Your task to perform on an android device: Show me recent news Image 0: 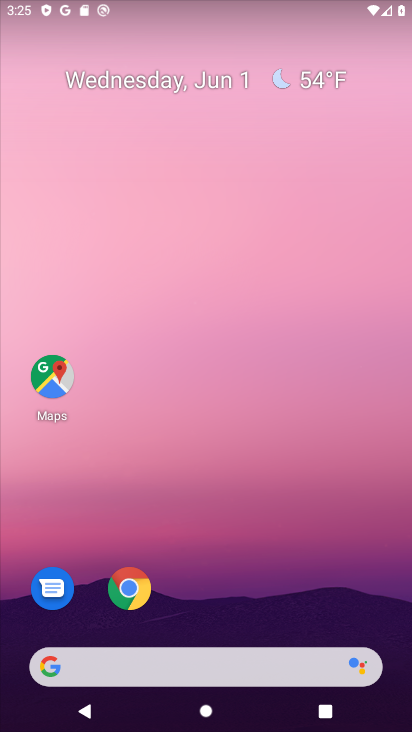
Step 0: click (173, 654)
Your task to perform on an android device: Show me recent news Image 1: 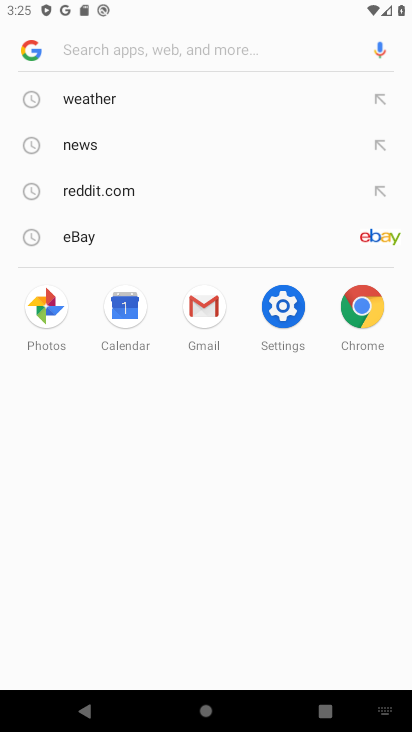
Step 1: type "recent news"
Your task to perform on an android device: Show me recent news Image 2: 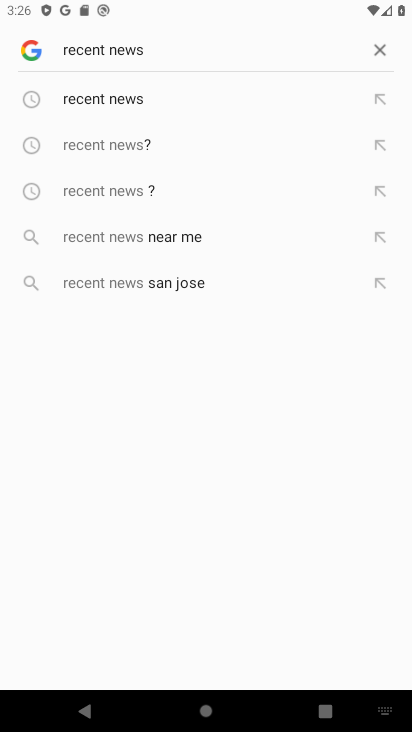
Step 2: click (137, 92)
Your task to perform on an android device: Show me recent news Image 3: 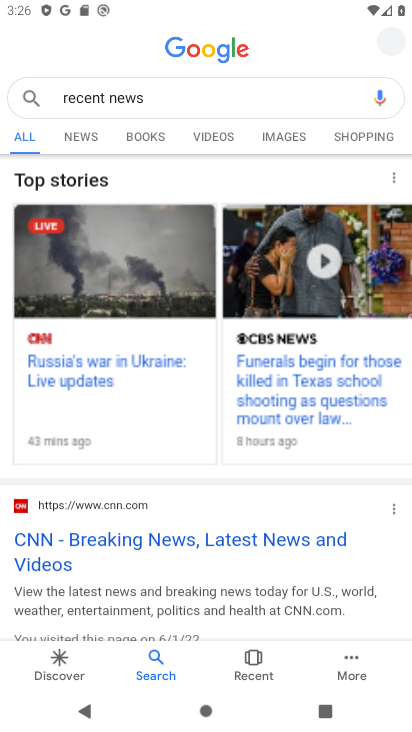
Step 3: task complete